Your task to perform on an android device: see sites visited before in the chrome app Image 0: 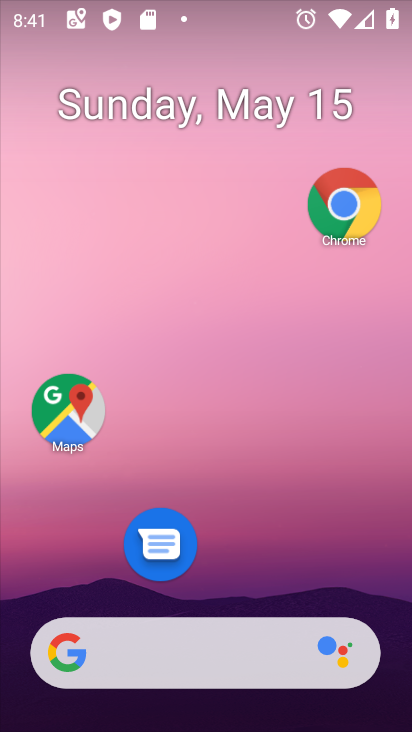
Step 0: click (342, 212)
Your task to perform on an android device: see sites visited before in the chrome app Image 1: 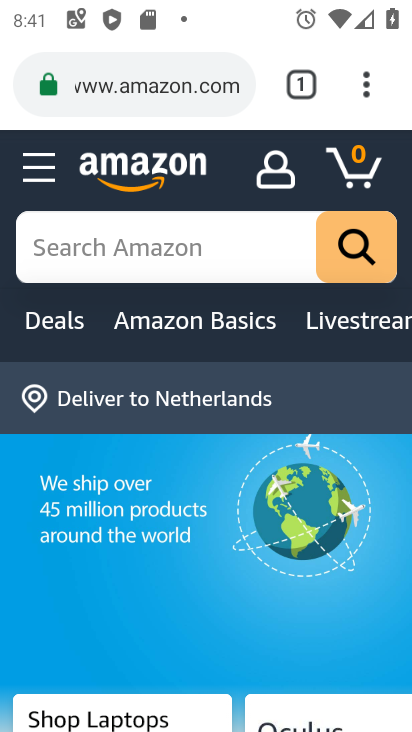
Step 1: click (357, 75)
Your task to perform on an android device: see sites visited before in the chrome app Image 2: 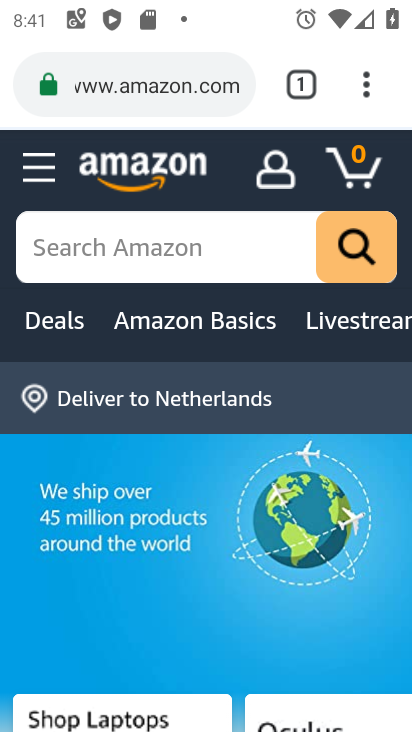
Step 2: click (357, 75)
Your task to perform on an android device: see sites visited before in the chrome app Image 3: 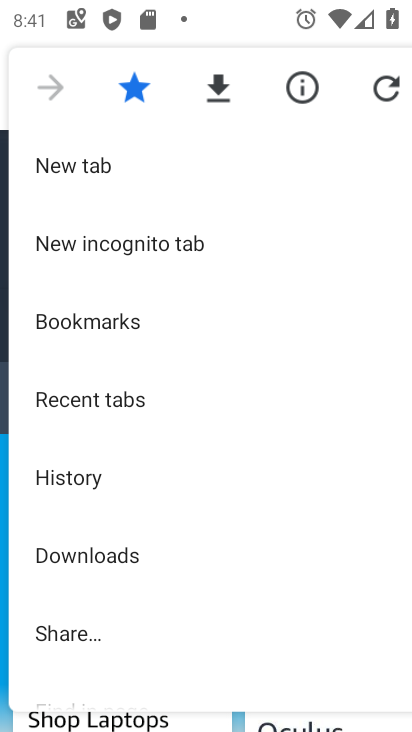
Step 3: click (87, 472)
Your task to perform on an android device: see sites visited before in the chrome app Image 4: 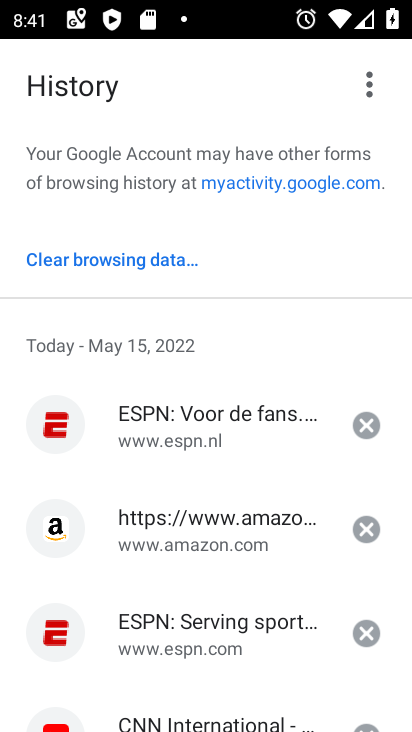
Step 4: task complete